Your task to perform on an android device: Open display settings Image 0: 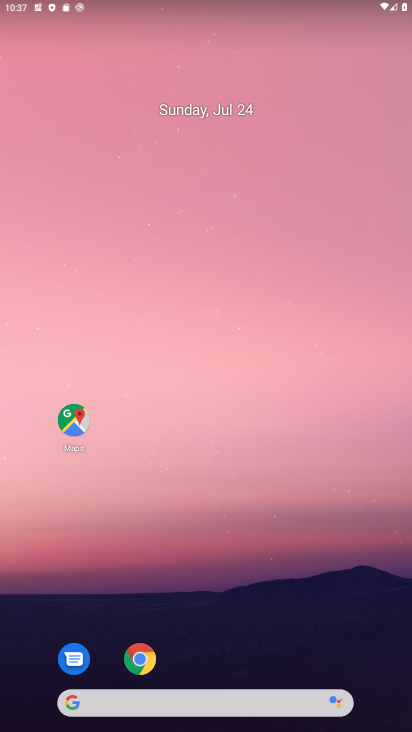
Step 0: click (272, 1)
Your task to perform on an android device: Open display settings Image 1: 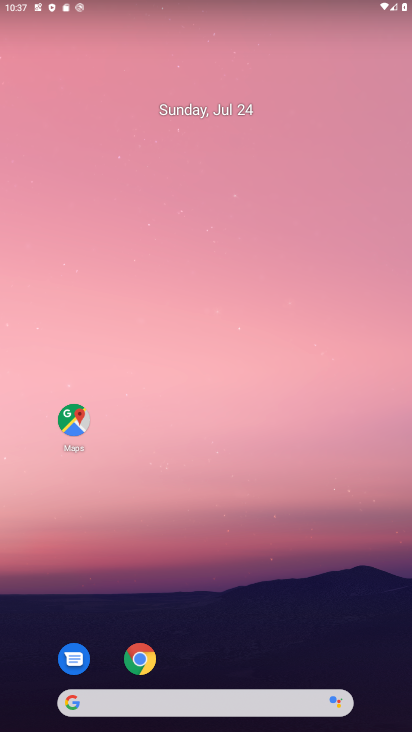
Step 1: drag from (382, 711) to (347, 85)
Your task to perform on an android device: Open display settings Image 2: 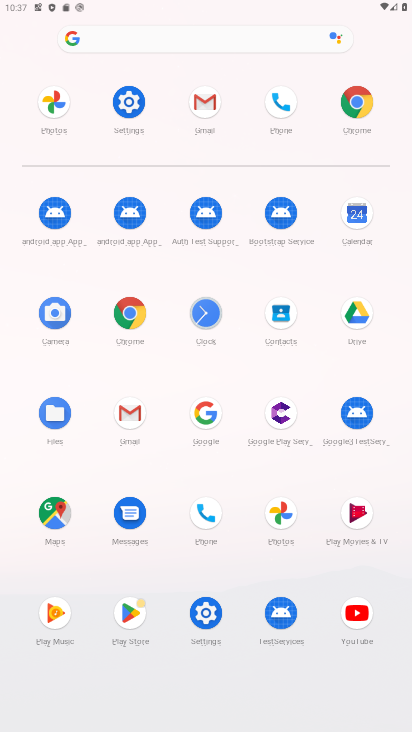
Step 2: click (199, 620)
Your task to perform on an android device: Open display settings Image 3: 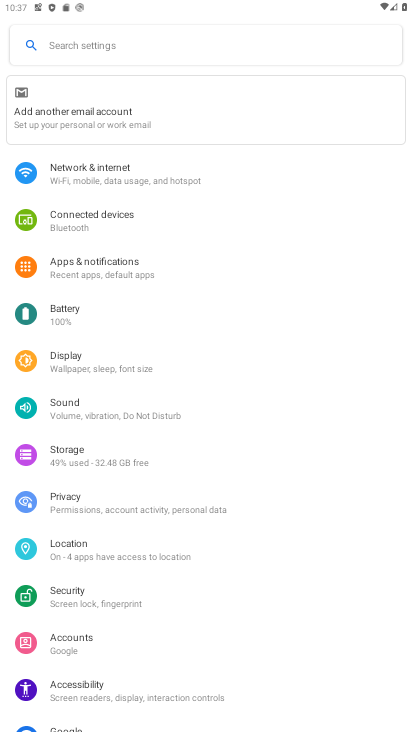
Step 3: click (70, 368)
Your task to perform on an android device: Open display settings Image 4: 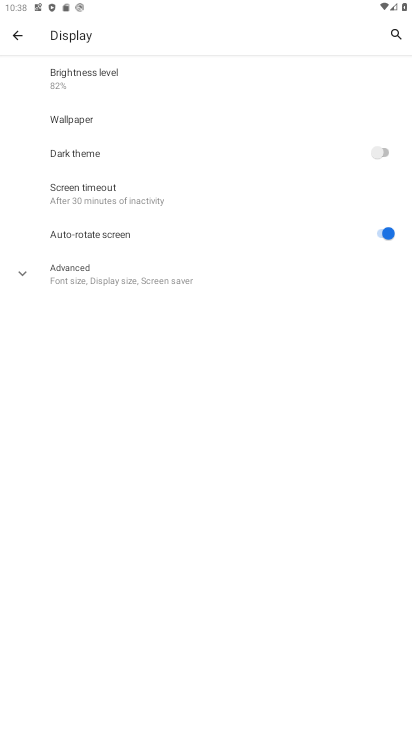
Step 4: click (24, 273)
Your task to perform on an android device: Open display settings Image 5: 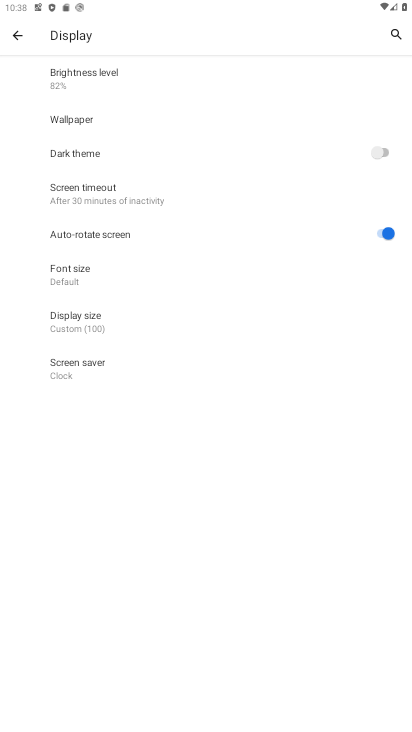
Step 5: task complete